Your task to perform on an android device: Open calendar and show me the third week of next month Image 0: 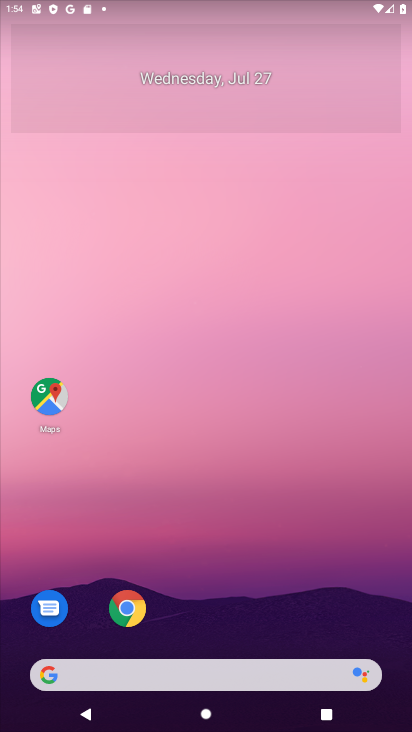
Step 0: click (40, 689)
Your task to perform on an android device: Open calendar and show me the third week of next month Image 1: 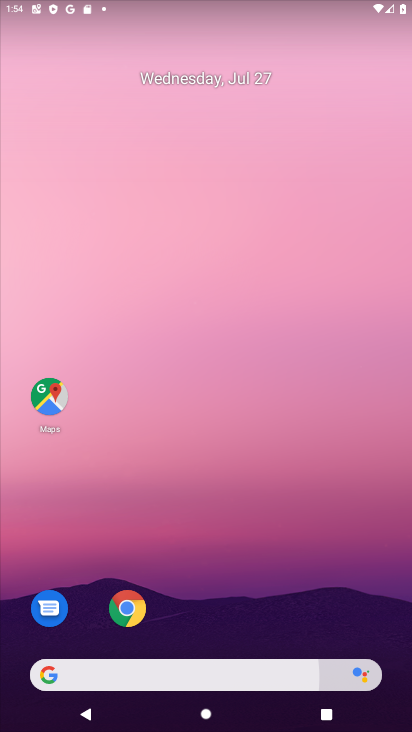
Step 1: drag from (23, 700) to (268, 139)
Your task to perform on an android device: Open calendar and show me the third week of next month Image 2: 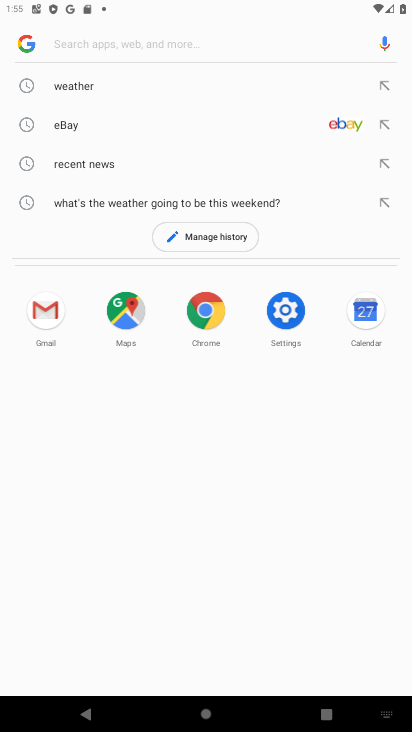
Step 2: press home button
Your task to perform on an android device: Open calendar and show me the third week of next month Image 3: 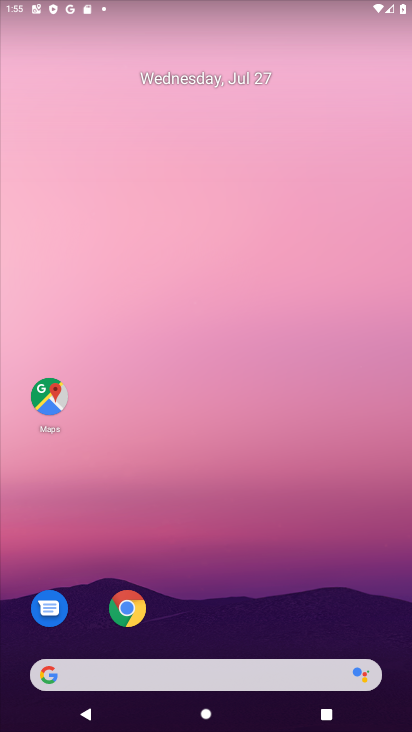
Step 3: drag from (58, 664) to (347, 29)
Your task to perform on an android device: Open calendar and show me the third week of next month Image 4: 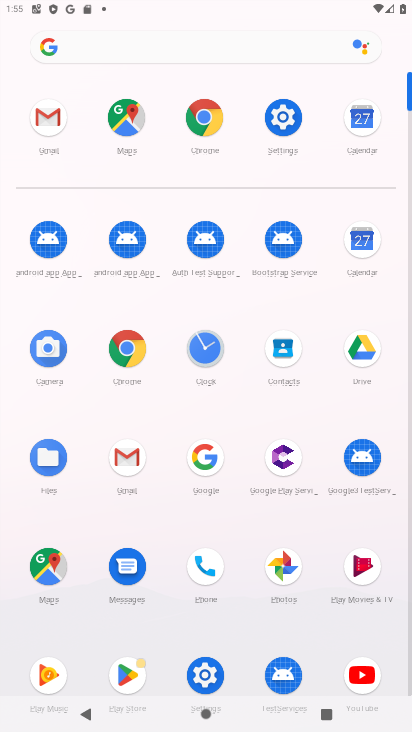
Step 4: click (363, 238)
Your task to perform on an android device: Open calendar and show me the third week of next month Image 5: 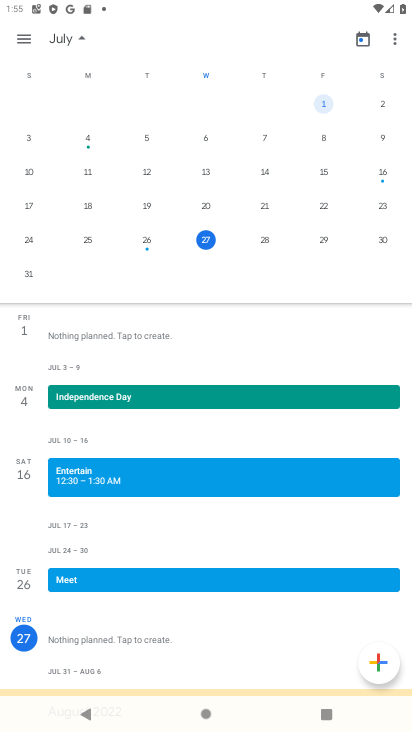
Step 5: drag from (369, 125) to (80, 162)
Your task to perform on an android device: Open calendar and show me the third week of next month Image 6: 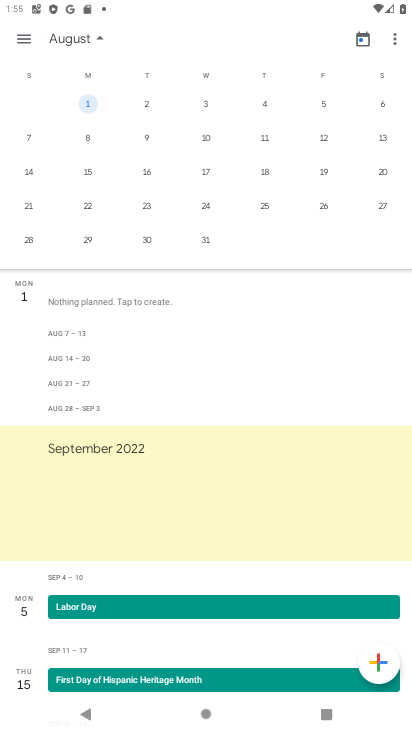
Step 6: click (82, 163)
Your task to perform on an android device: Open calendar and show me the third week of next month Image 7: 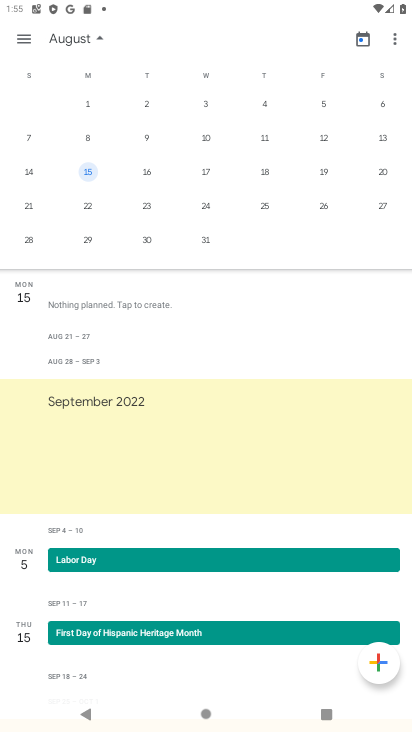
Step 7: task complete